Your task to perform on an android device: toggle location history Image 0: 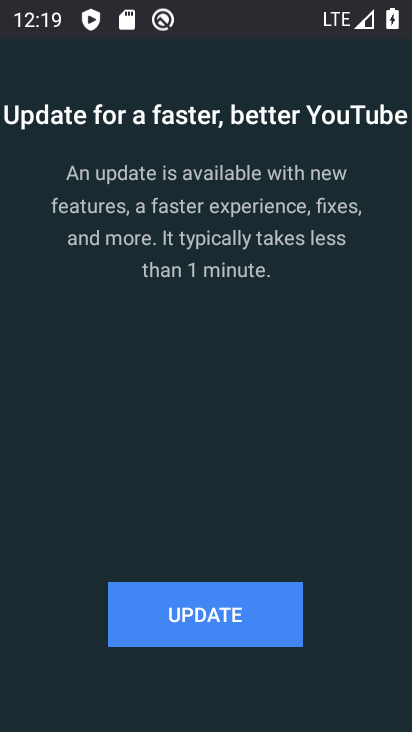
Step 0: press home button
Your task to perform on an android device: toggle location history Image 1: 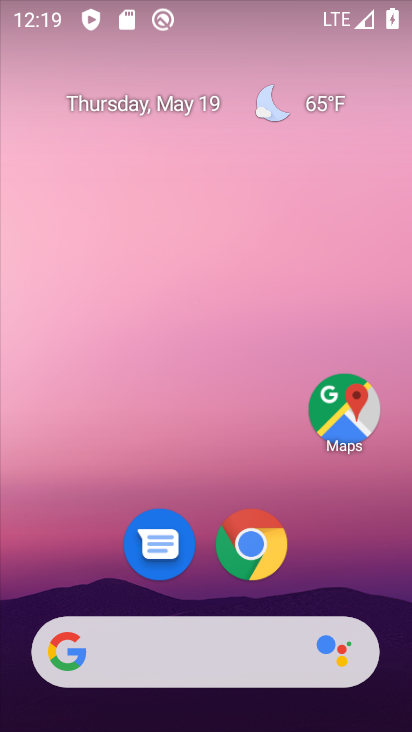
Step 1: drag from (344, 567) to (351, 200)
Your task to perform on an android device: toggle location history Image 2: 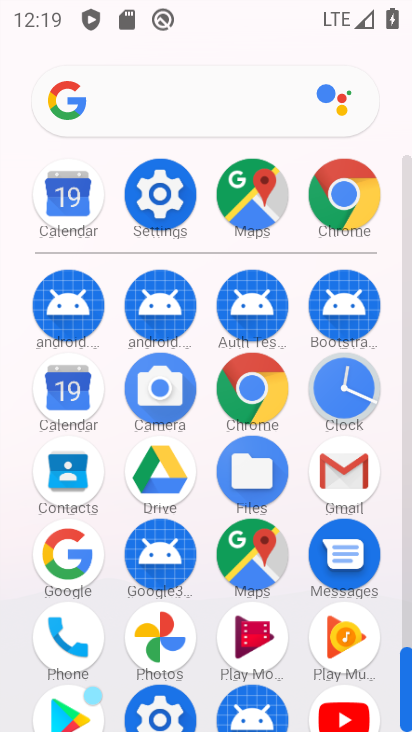
Step 2: click (175, 203)
Your task to perform on an android device: toggle location history Image 3: 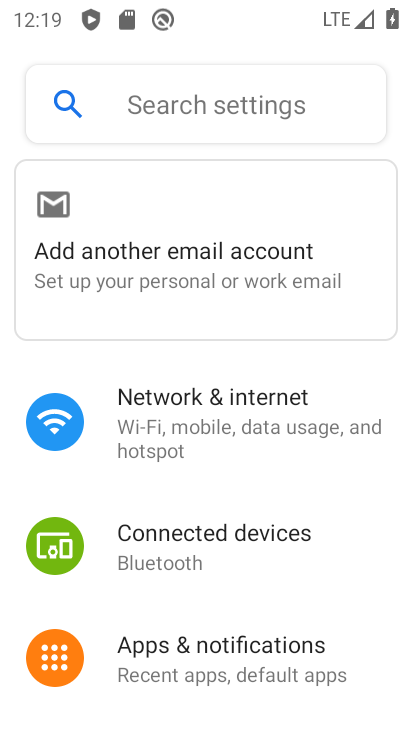
Step 3: drag from (326, 579) to (337, 382)
Your task to perform on an android device: toggle location history Image 4: 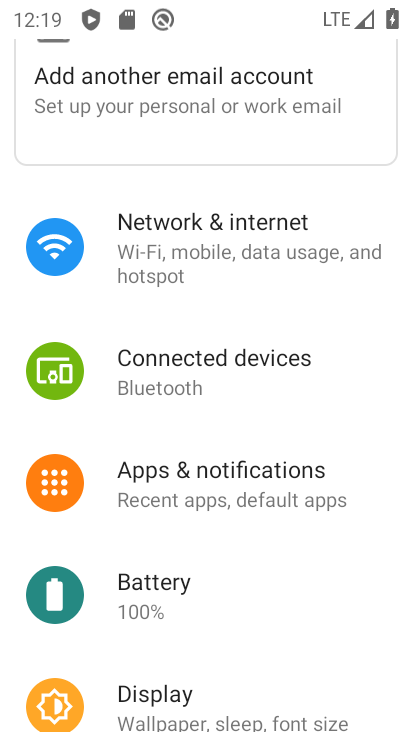
Step 4: drag from (355, 609) to (363, 463)
Your task to perform on an android device: toggle location history Image 5: 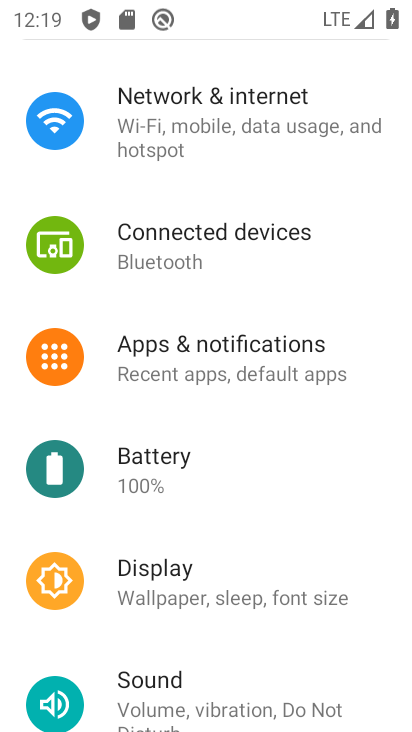
Step 5: drag from (353, 673) to (359, 541)
Your task to perform on an android device: toggle location history Image 6: 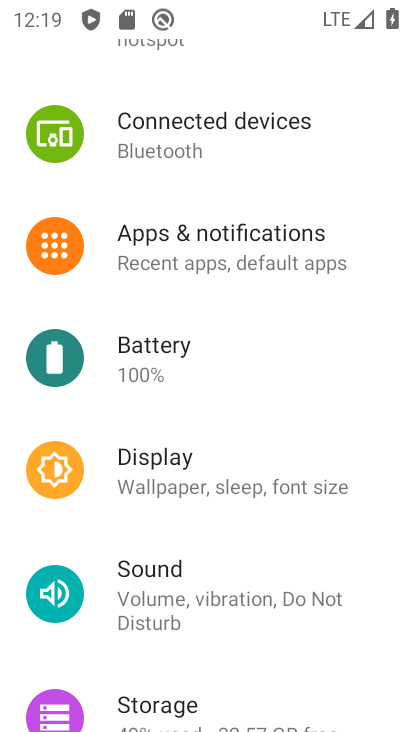
Step 6: drag from (366, 622) to (344, 427)
Your task to perform on an android device: toggle location history Image 7: 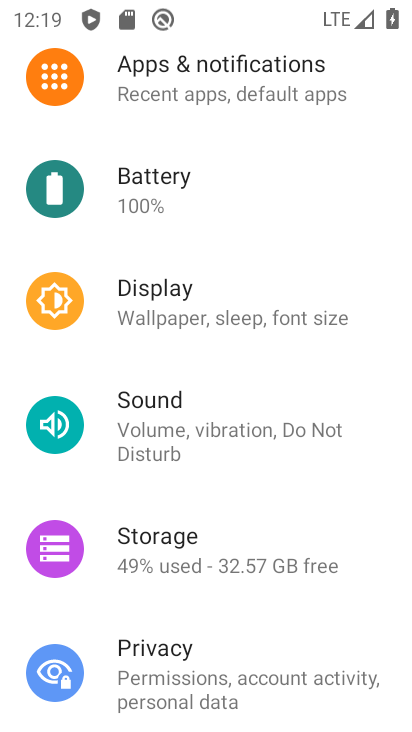
Step 7: drag from (360, 599) to (364, 355)
Your task to perform on an android device: toggle location history Image 8: 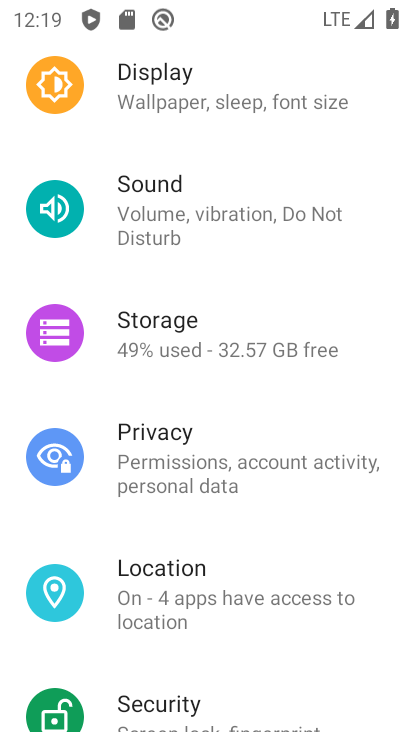
Step 8: drag from (327, 642) to (326, 394)
Your task to perform on an android device: toggle location history Image 9: 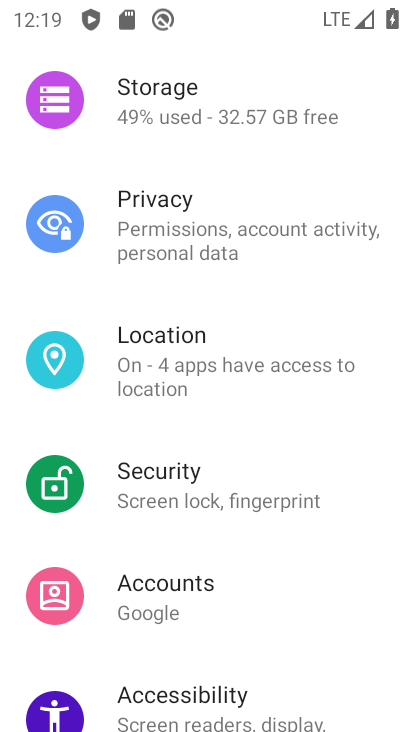
Step 9: drag from (335, 617) to (325, 430)
Your task to perform on an android device: toggle location history Image 10: 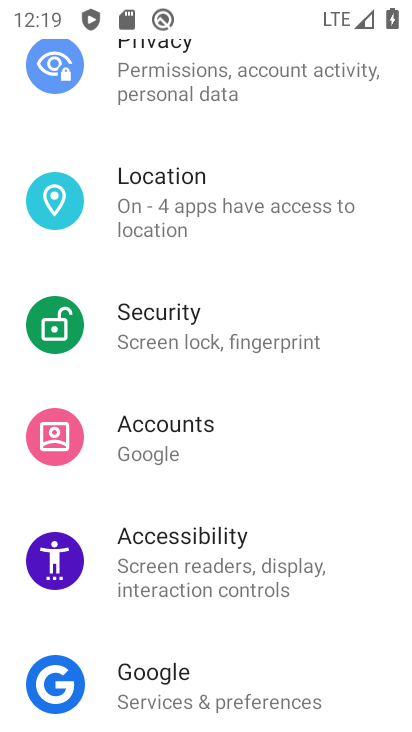
Step 10: drag from (342, 626) to (334, 437)
Your task to perform on an android device: toggle location history Image 11: 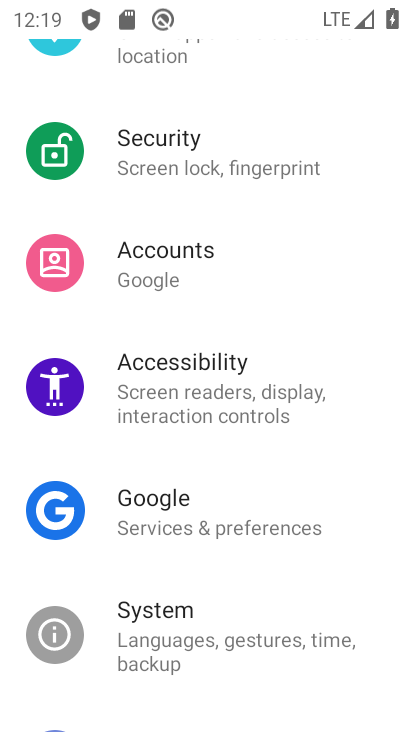
Step 11: drag from (331, 647) to (314, 386)
Your task to perform on an android device: toggle location history Image 12: 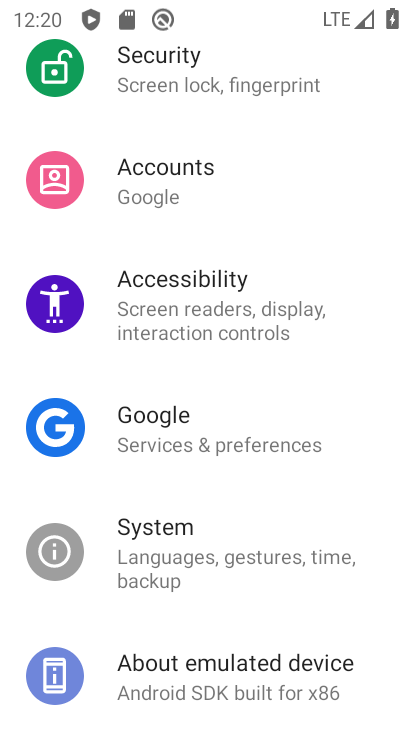
Step 12: drag from (356, 279) to (361, 582)
Your task to perform on an android device: toggle location history Image 13: 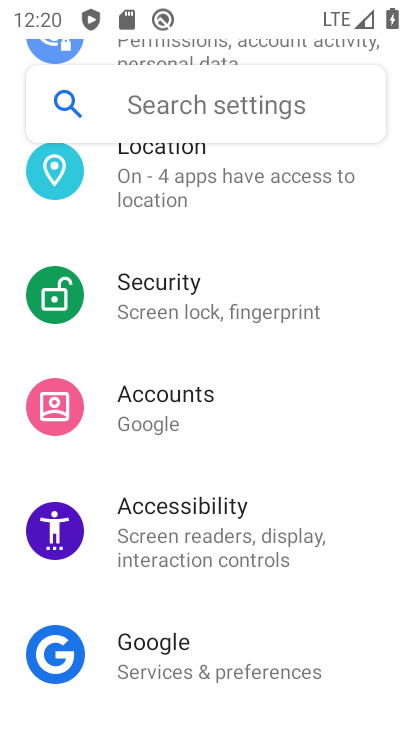
Step 13: drag from (351, 301) to (327, 518)
Your task to perform on an android device: toggle location history Image 14: 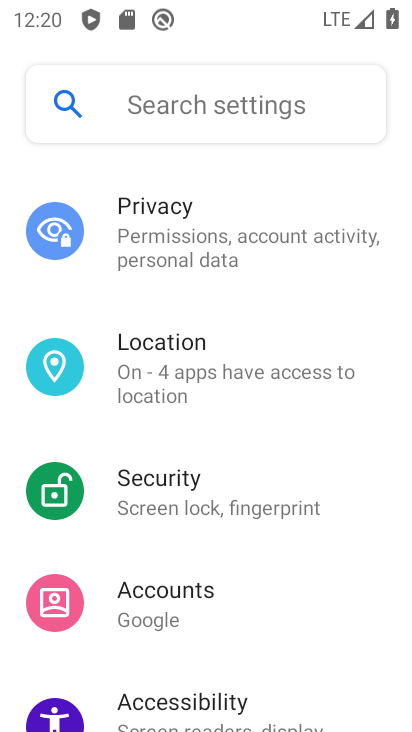
Step 14: click (325, 372)
Your task to perform on an android device: toggle location history Image 15: 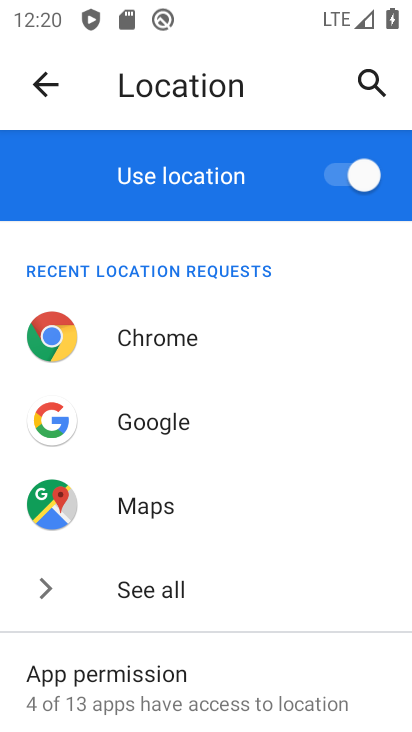
Step 15: drag from (347, 623) to (316, 443)
Your task to perform on an android device: toggle location history Image 16: 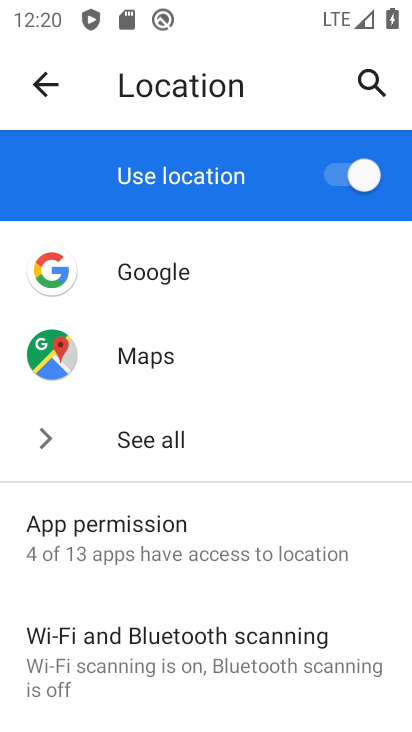
Step 16: drag from (336, 597) to (326, 392)
Your task to perform on an android device: toggle location history Image 17: 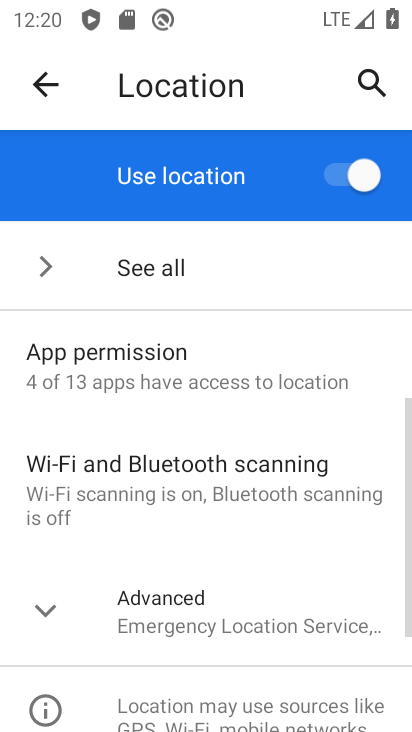
Step 17: drag from (321, 584) to (320, 410)
Your task to perform on an android device: toggle location history Image 18: 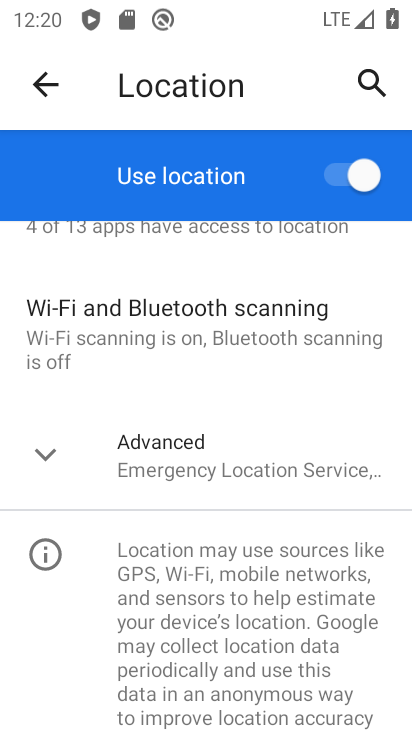
Step 18: click (280, 465)
Your task to perform on an android device: toggle location history Image 19: 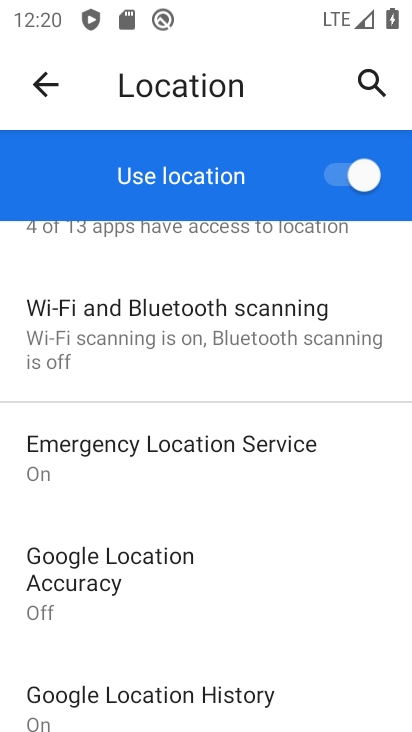
Step 19: drag from (269, 623) to (259, 458)
Your task to perform on an android device: toggle location history Image 20: 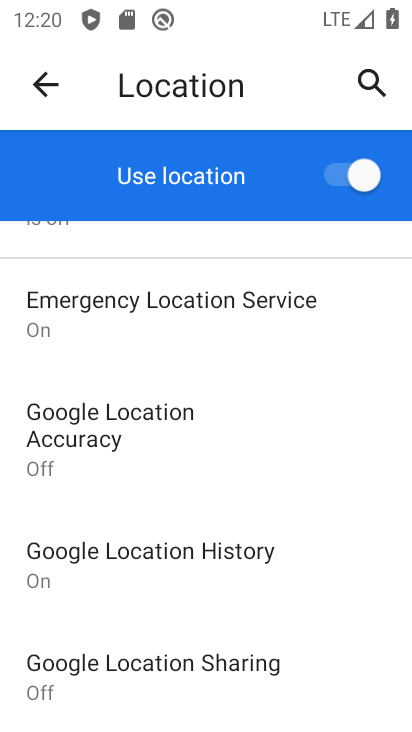
Step 20: drag from (306, 635) to (307, 458)
Your task to perform on an android device: toggle location history Image 21: 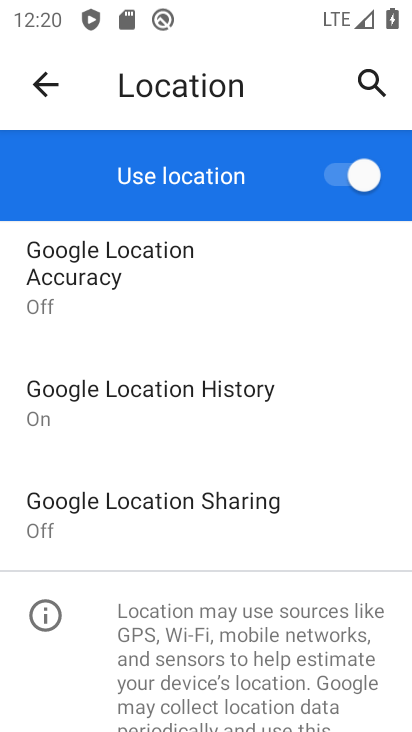
Step 21: drag from (293, 587) to (294, 409)
Your task to perform on an android device: toggle location history Image 22: 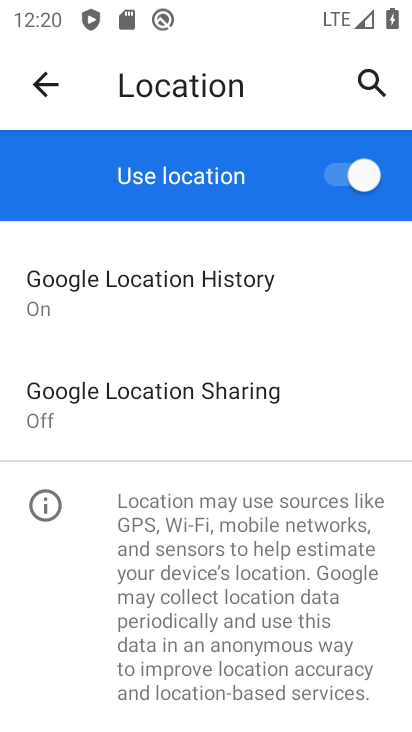
Step 22: click (177, 287)
Your task to perform on an android device: toggle location history Image 23: 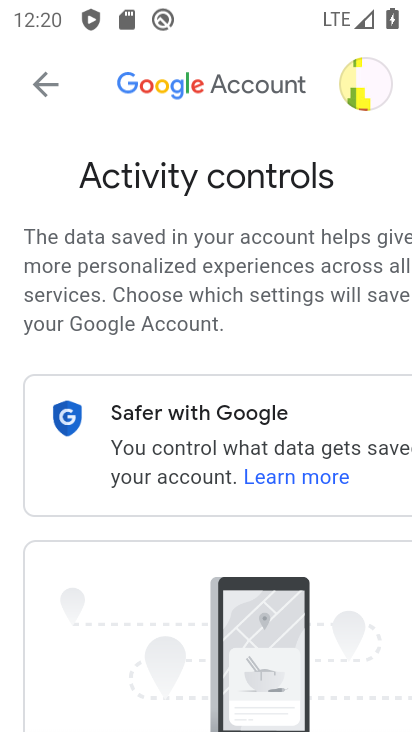
Step 23: drag from (245, 603) to (244, 343)
Your task to perform on an android device: toggle location history Image 24: 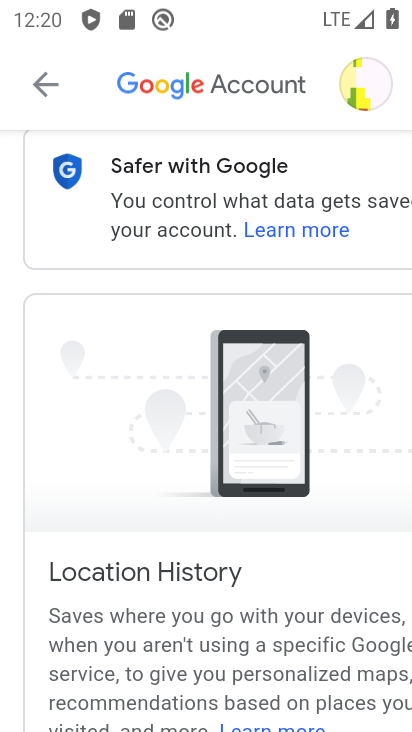
Step 24: drag from (230, 591) to (234, 326)
Your task to perform on an android device: toggle location history Image 25: 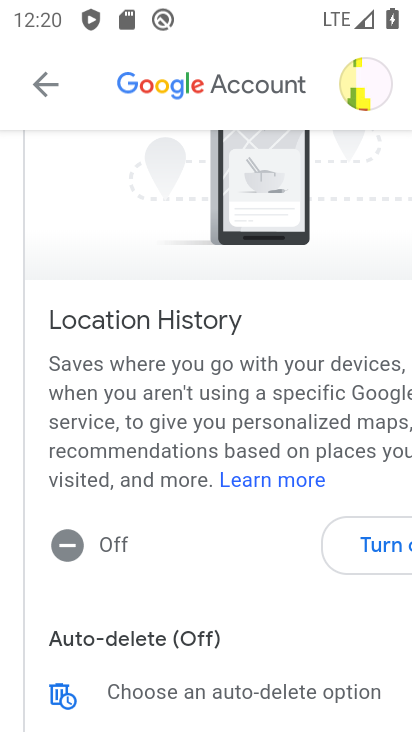
Step 25: click (377, 535)
Your task to perform on an android device: toggle location history Image 26: 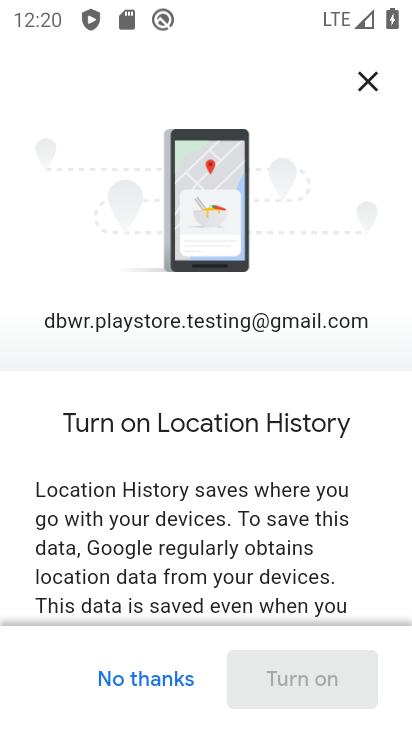
Step 26: drag from (221, 581) to (226, 301)
Your task to perform on an android device: toggle location history Image 27: 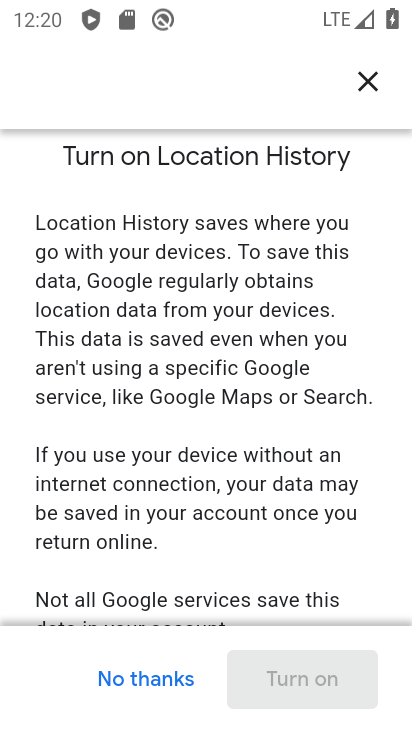
Step 27: drag from (200, 537) to (222, 230)
Your task to perform on an android device: toggle location history Image 28: 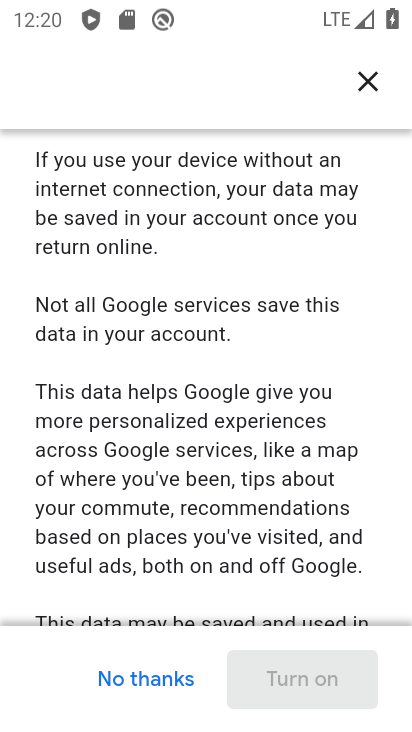
Step 28: drag from (299, 584) to (284, 341)
Your task to perform on an android device: toggle location history Image 29: 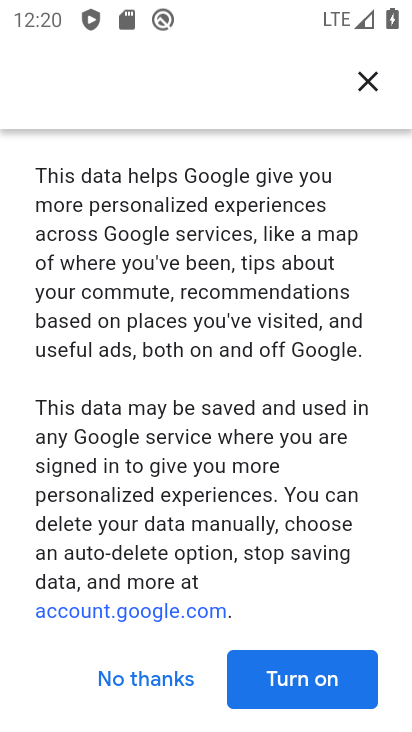
Step 29: click (297, 686)
Your task to perform on an android device: toggle location history Image 30: 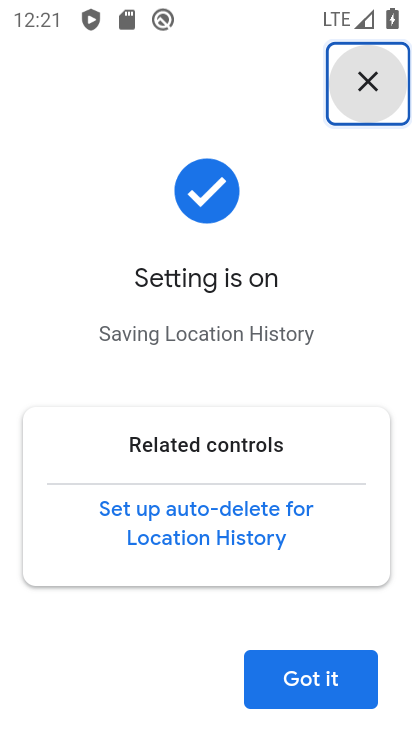
Step 30: task complete